Your task to perform on an android device: install app "Flipkart Online Shopping App" Image 0: 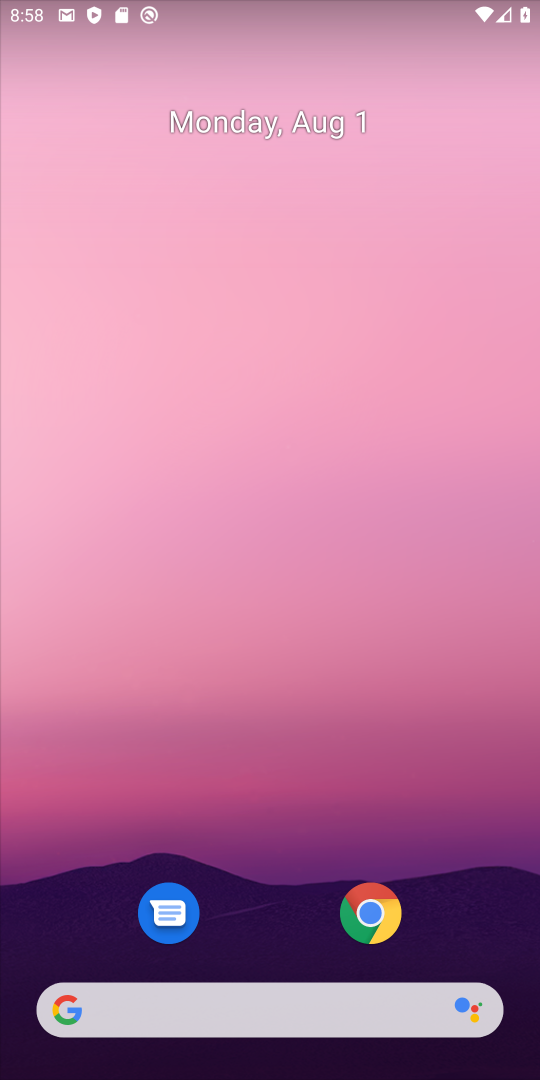
Step 0: drag from (290, 998) to (290, 6)
Your task to perform on an android device: install app "Flipkart Online Shopping App" Image 1: 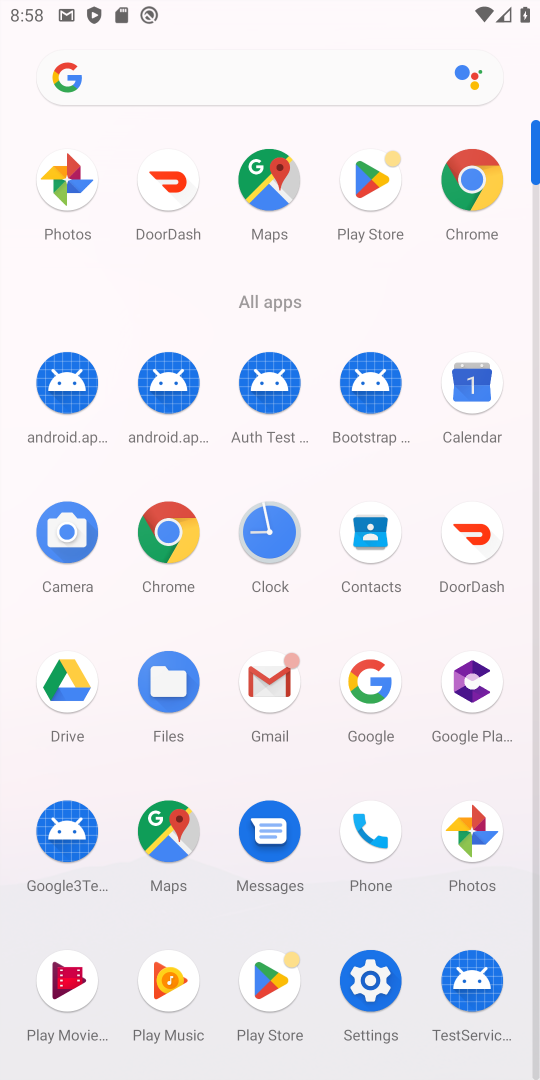
Step 1: click (281, 983)
Your task to perform on an android device: install app "Flipkart Online Shopping App" Image 2: 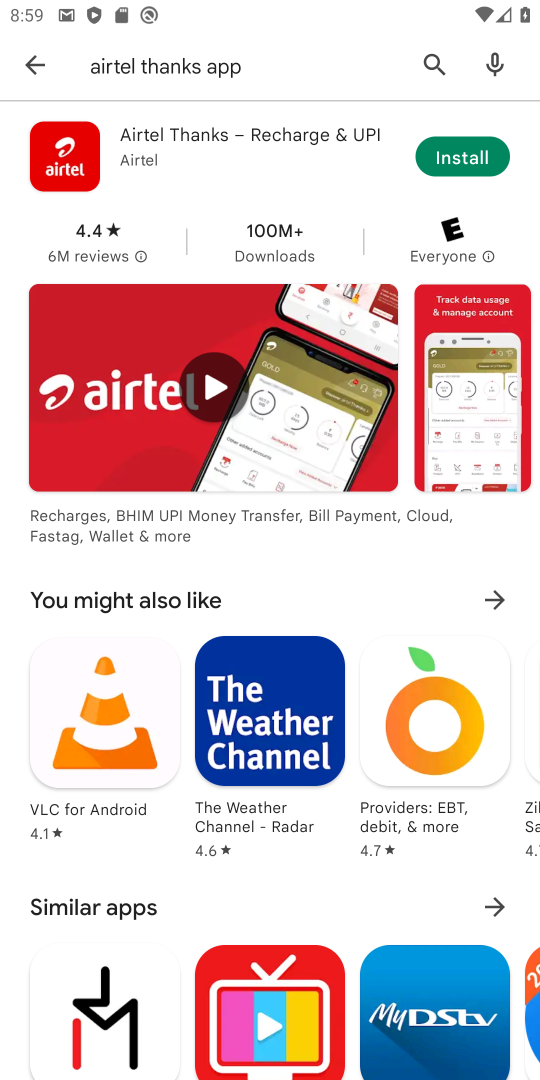
Step 2: click (422, 64)
Your task to perform on an android device: install app "Flipkart Online Shopping App" Image 3: 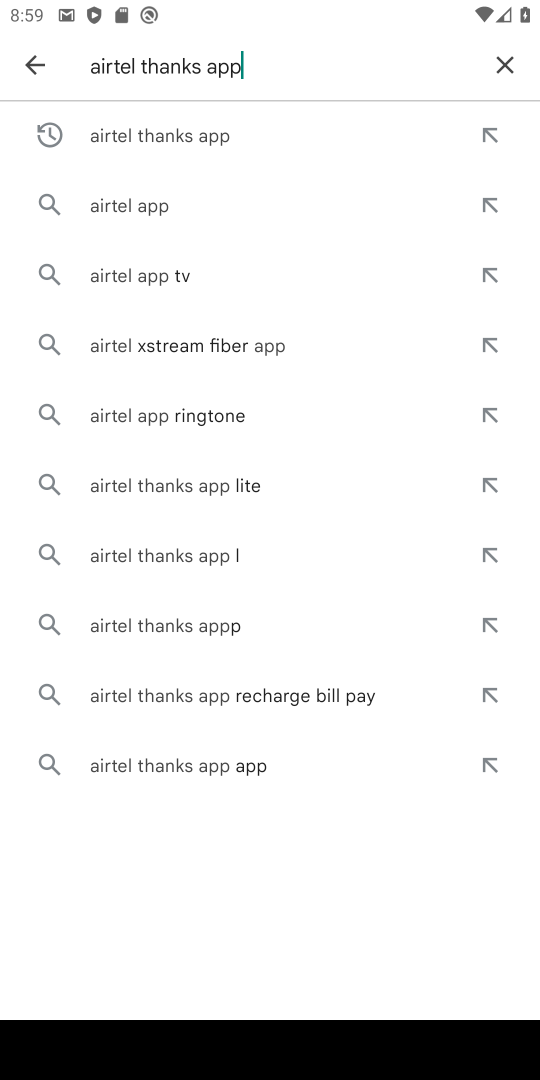
Step 3: click (494, 70)
Your task to perform on an android device: install app "Flipkart Online Shopping App" Image 4: 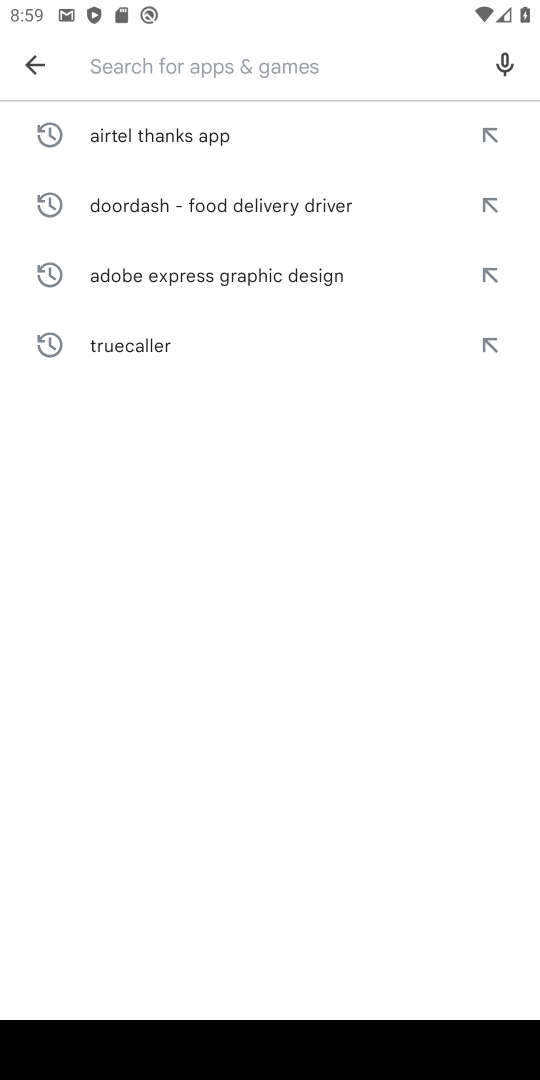
Step 4: type "Flipkart Online Shopping App"
Your task to perform on an android device: install app "Flipkart Online Shopping App" Image 5: 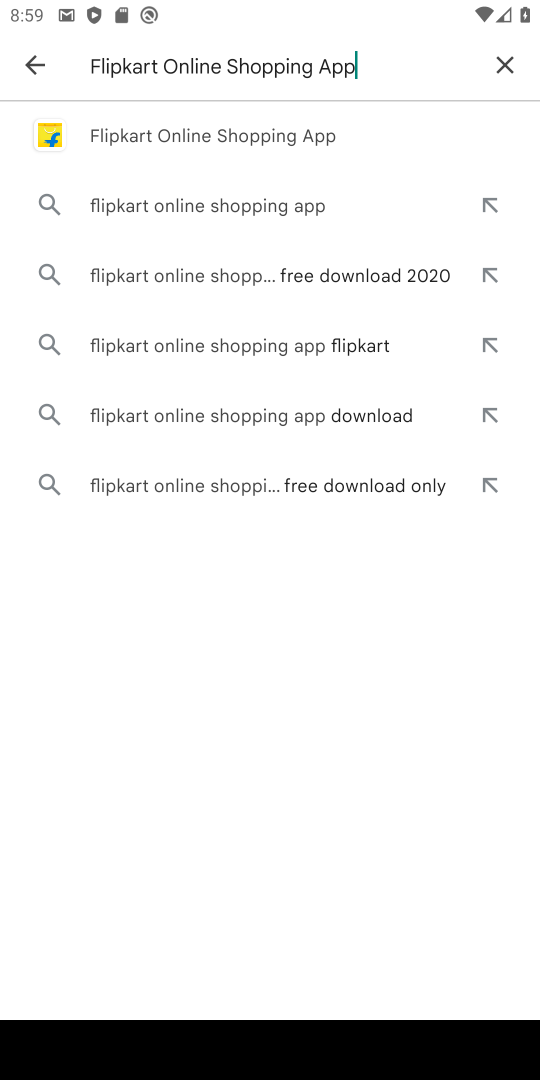
Step 5: click (223, 140)
Your task to perform on an android device: install app "Flipkart Online Shopping App" Image 6: 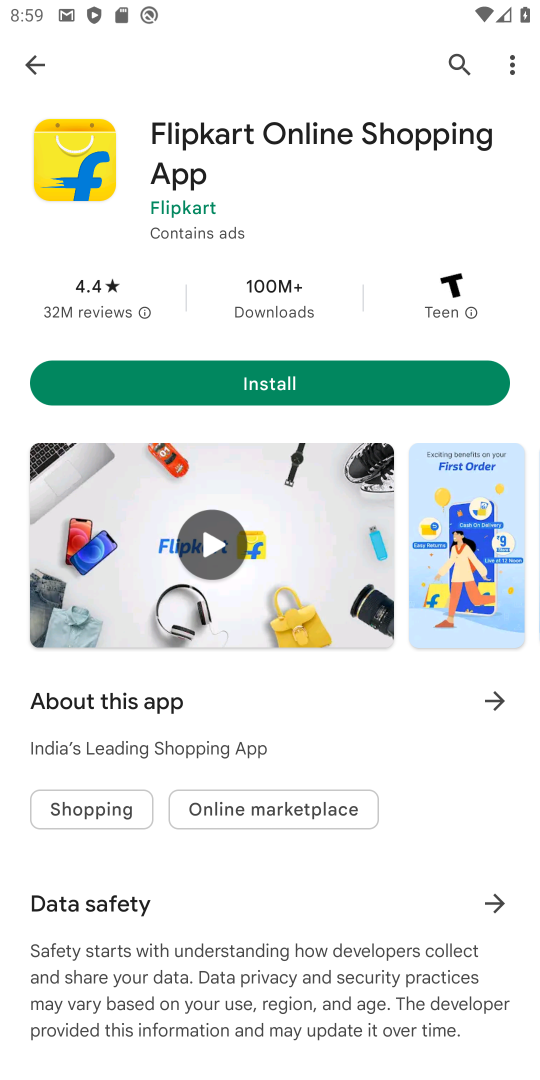
Step 6: click (354, 400)
Your task to perform on an android device: install app "Flipkart Online Shopping App" Image 7: 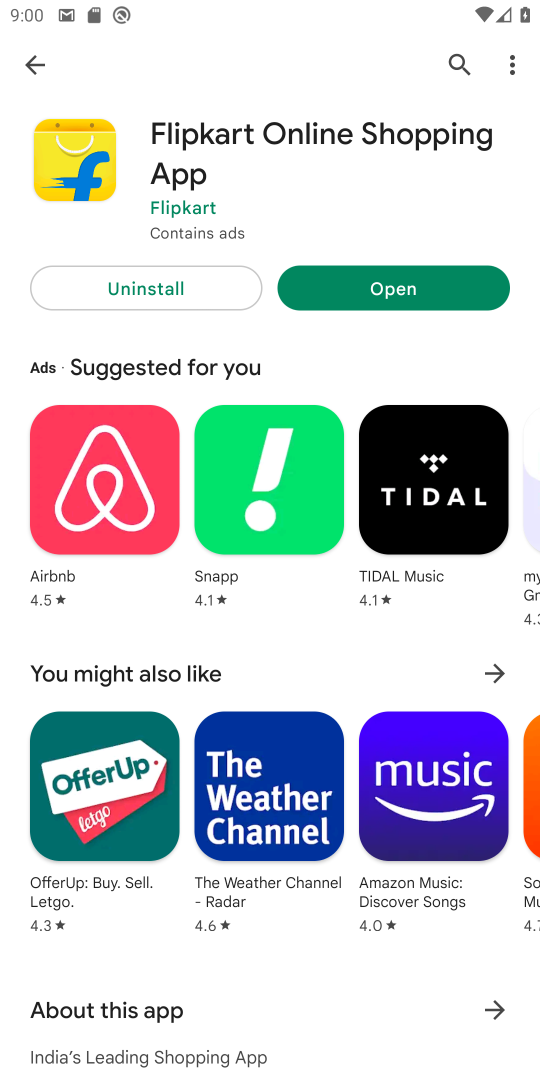
Step 7: task complete